Your task to perform on an android device: check the backup settings in the google photos Image 0: 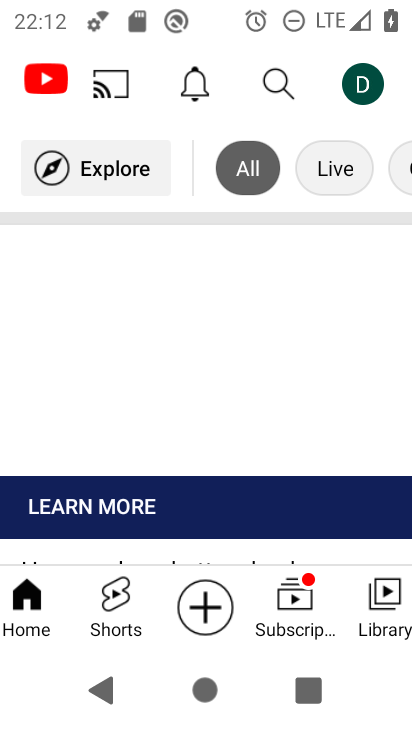
Step 0: press home button
Your task to perform on an android device: check the backup settings in the google photos Image 1: 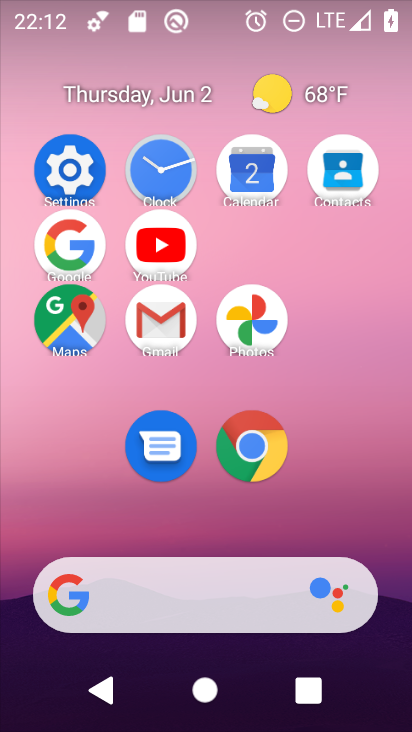
Step 1: click (261, 344)
Your task to perform on an android device: check the backup settings in the google photos Image 2: 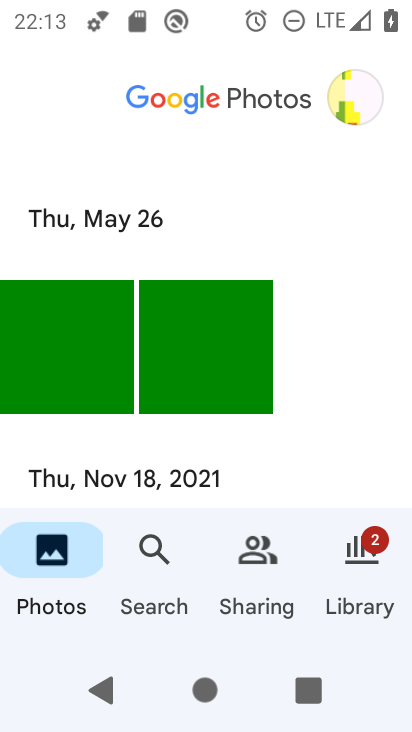
Step 2: click (354, 95)
Your task to perform on an android device: check the backup settings in the google photos Image 3: 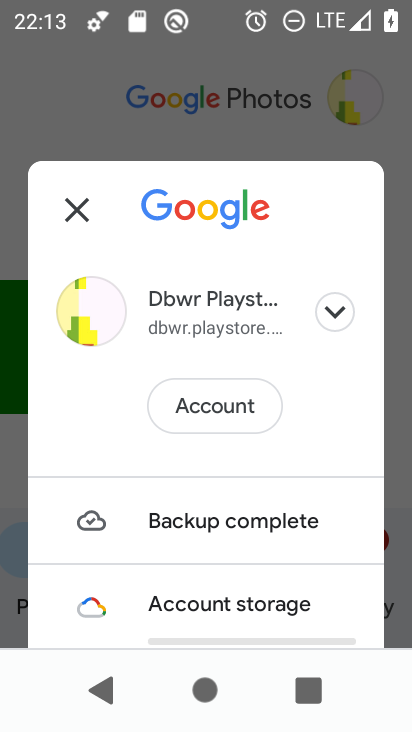
Step 3: drag from (262, 531) to (239, 241)
Your task to perform on an android device: check the backup settings in the google photos Image 4: 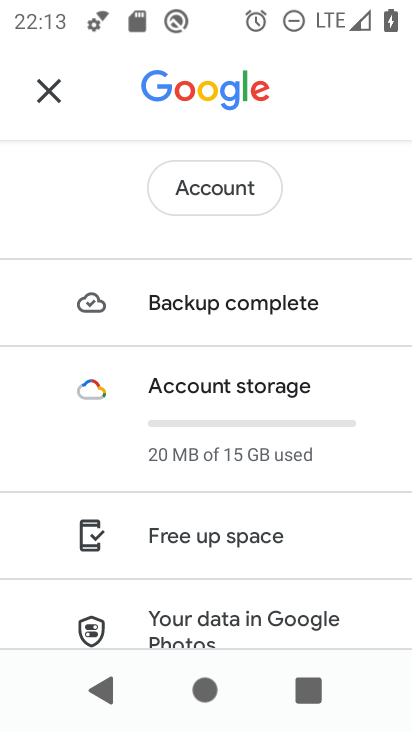
Step 4: drag from (306, 534) to (299, 241)
Your task to perform on an android device: check the backup settings in the google photos Image 5: 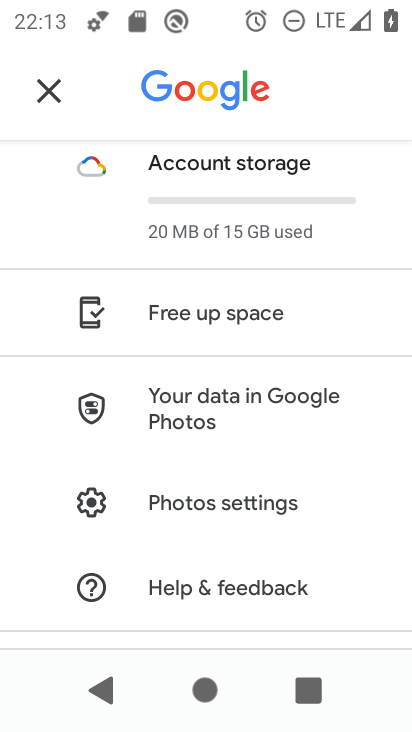
Step 5: click (262, 522)
Your task to perform on an android device: check the backup settings in the google photos Image 6: 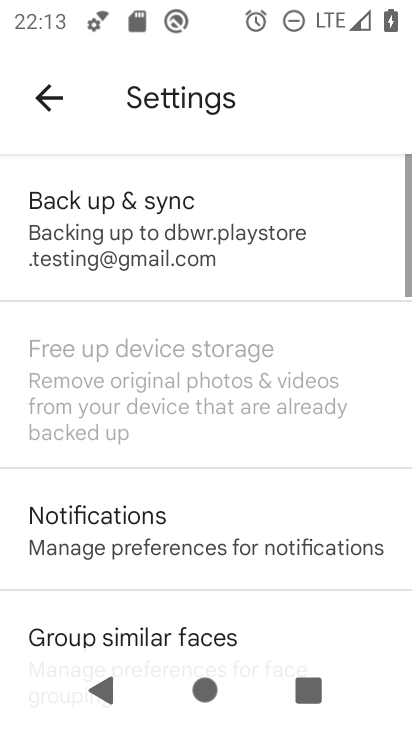
Step 6: click (214, 201)
Your task to perform on an android device: check the backup settings in the google photos Image 7: 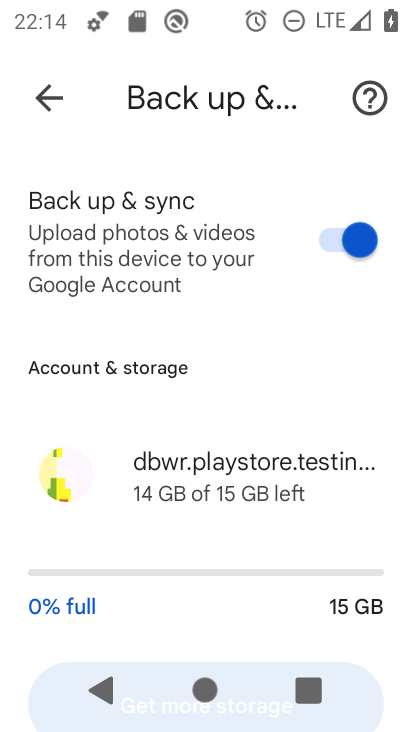
Step 7: task complete